Your task to perform on an android device: turn on location history Image 0: 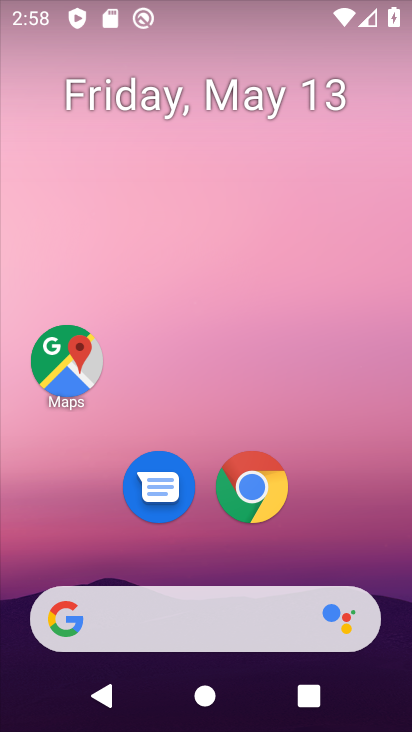
Step 0: drag from (355, 510) to (351, 68)
Your task to perform on an android device: turn on location history Image 1: 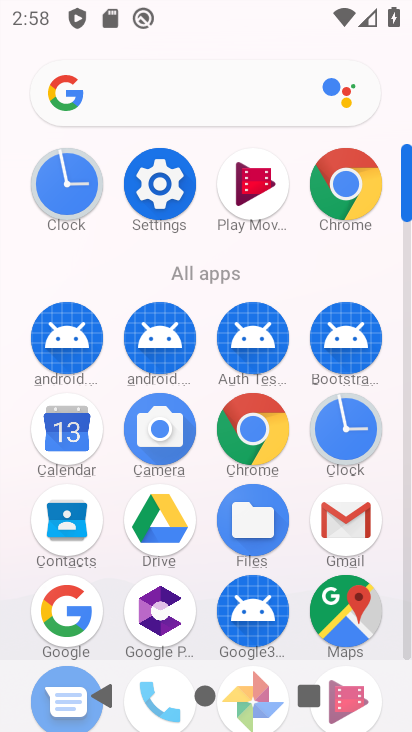
Step 1: click (147, 179)
Your task to perform on an android device: turn on location history Image 2: 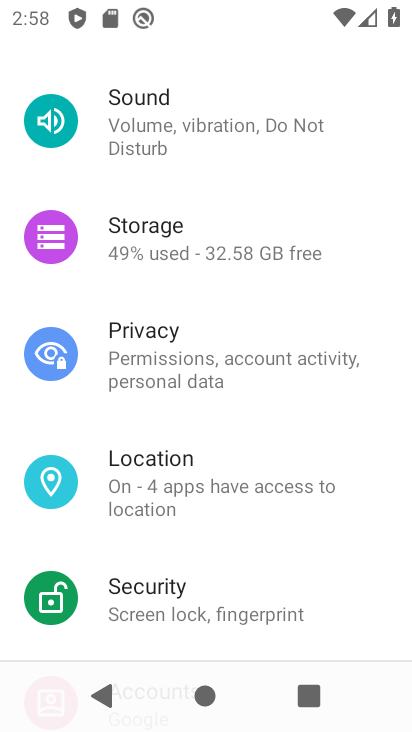
Step 2: click (167, 485)
Your task to perform on an android device: turn on location history Image 3: 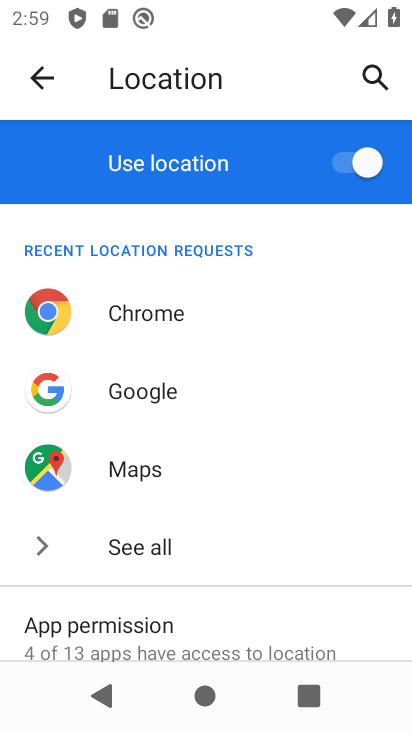
Step 3: drag from (167, 485) to (173, 120)
Your task to perform on an android device: turn on location history Image 4: 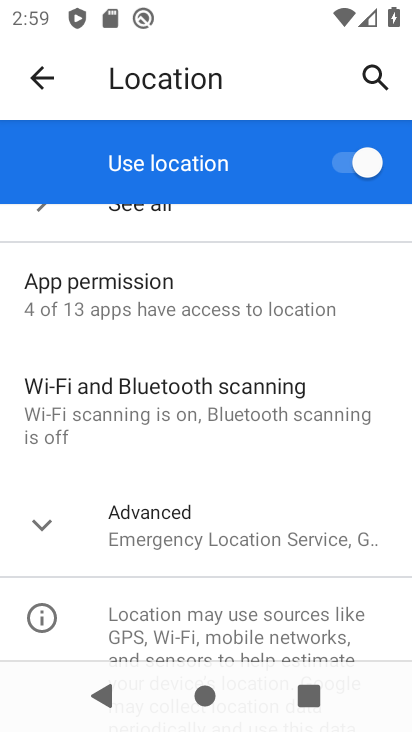
Step 4: click (190, 522)
Your task to perform on an android device: turn on location history Image 5: 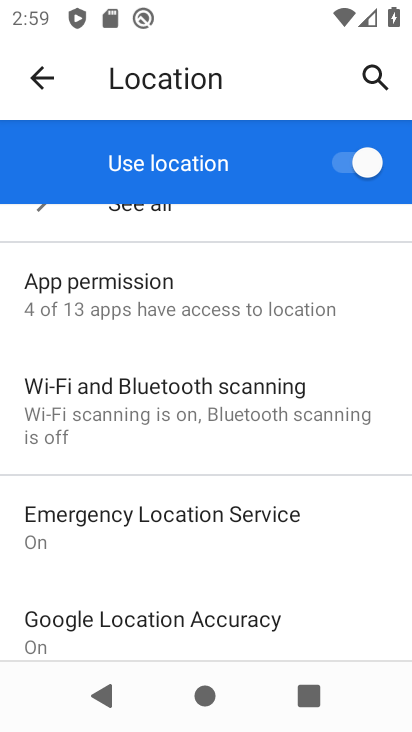
Step 5: drag from (114, 512) to (167, 267)
Your task to perform on an android device: turn on location history Image 6: 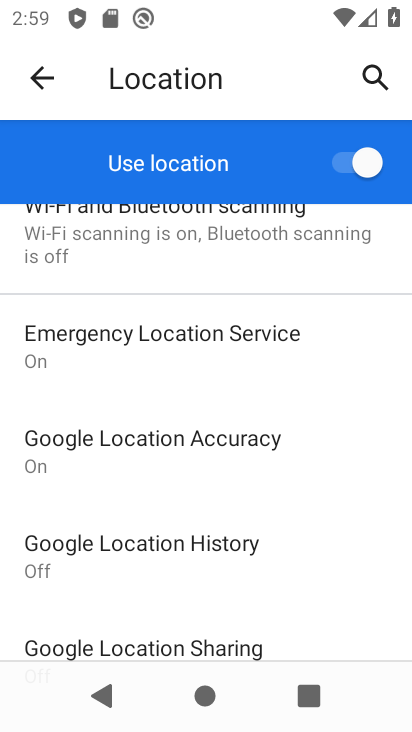
Step 6: drag from (258, 595) to (293, 276)
Your task to perform on an android device: turn on location history Image 7: 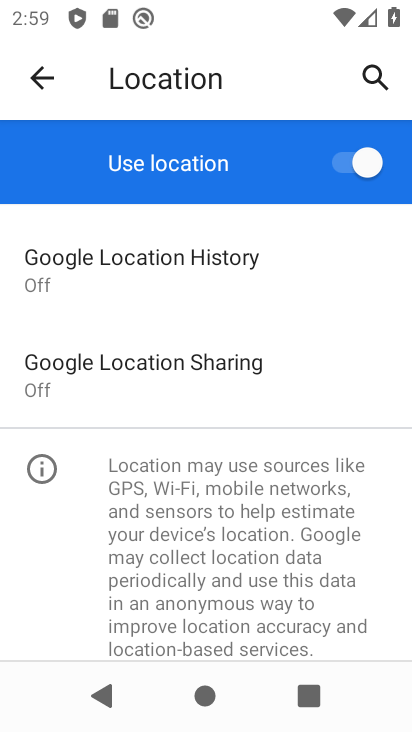
Step 7: click (148, 259)
Your task to perform on an android device: turn on location history Image 8: 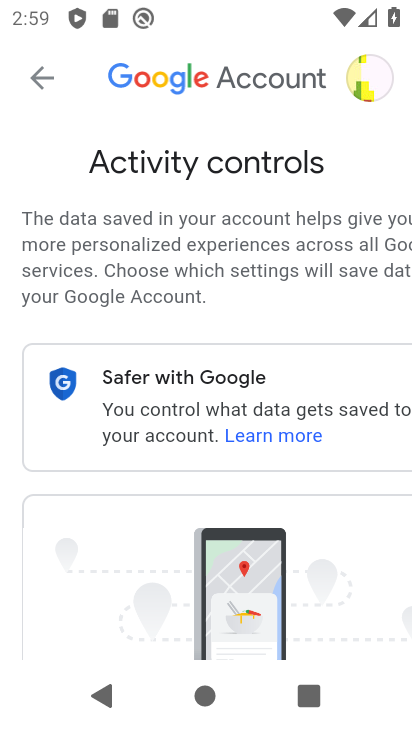
Step 8: drag from (196, 529) to (258, 209)
Your task to perform on an android device: turn on location history Image 9: 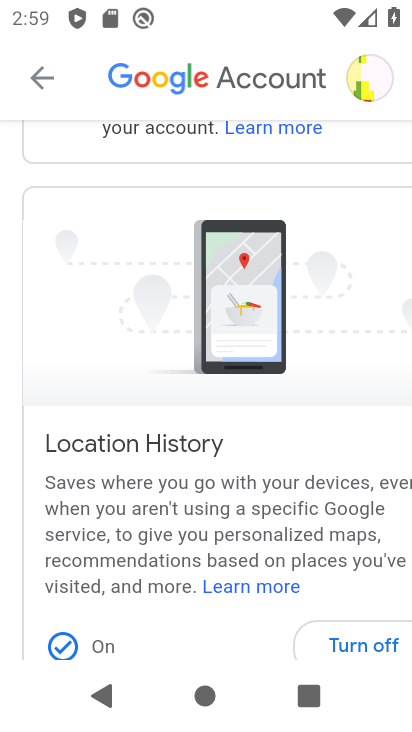
Step 9: drag from (156, 589) to (153, 196)
Your task to perform on an android device: turn on location history Image 10: 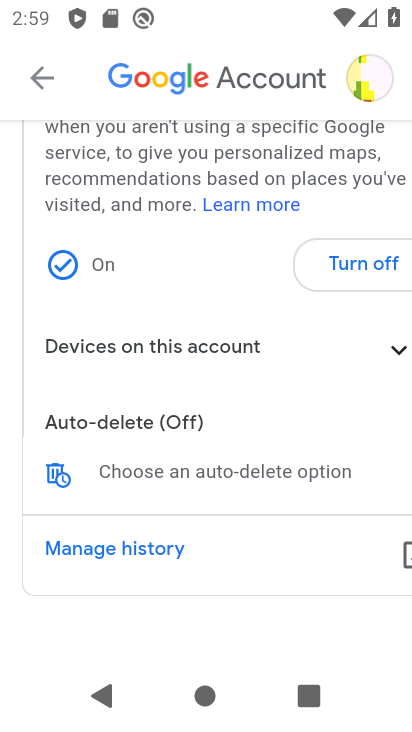
Step 10: drag from (283, 546) to (128, 516)
Your task to perform on an android device: turn on location history Image 11: 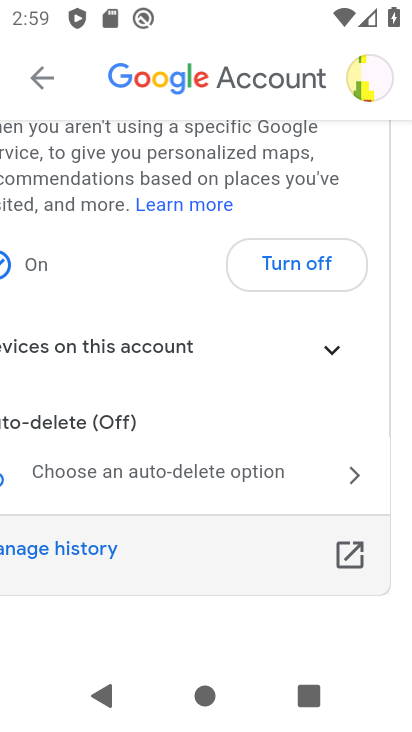
Step 11: click (277, 266)
Your task to perform on an android device: turn on location history Image 12: 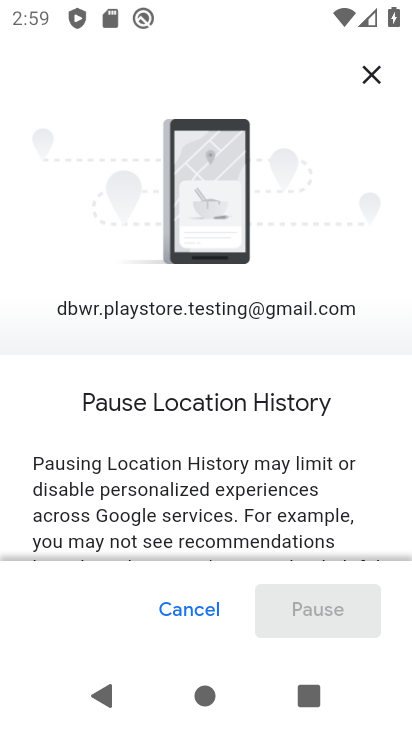
Step 12: drag from (296, 466) to (301, 159)
Your task to perform on an android device: turn on location history Image 13: 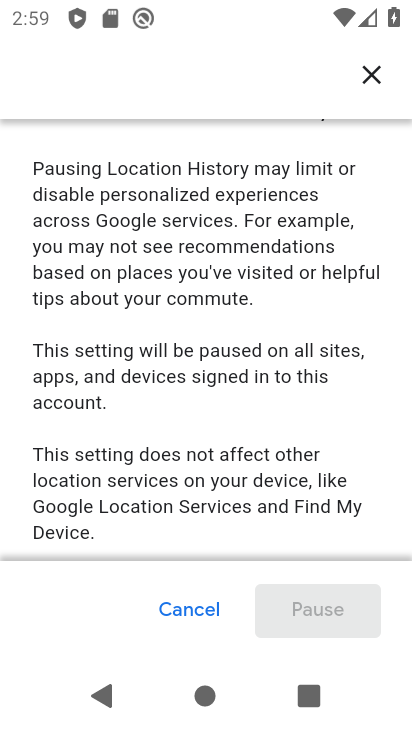
Step 13: drag from (214, 444) to (235, 111)
Your task to perform on an android device: turn on location history Image 14: 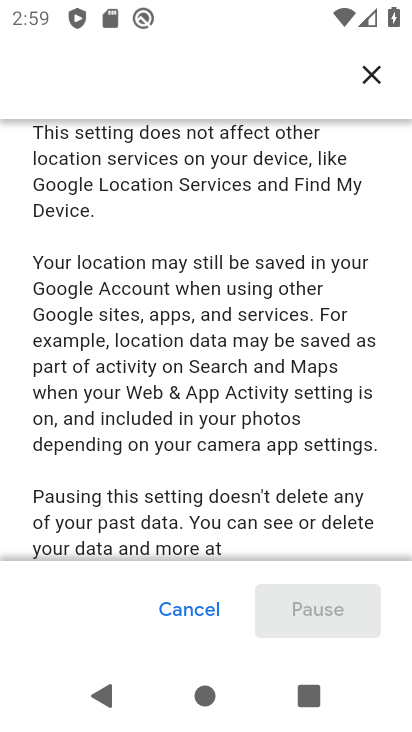
Step 14: drag from (228, 435) to (288, 104)
Your task to perform on an android device: turn on location history Image 15: 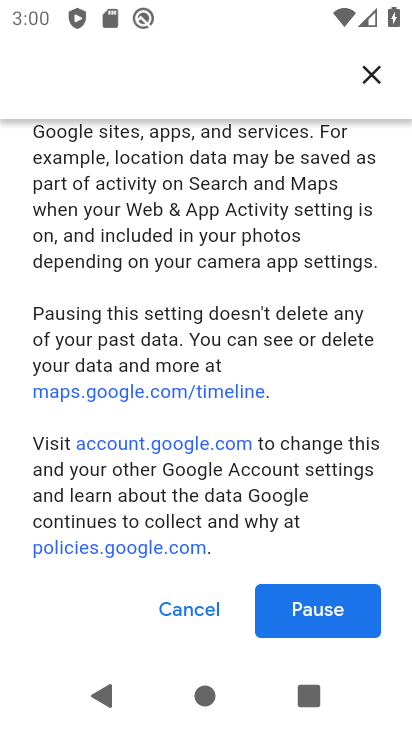
Step 15: click (317, 614)
Your task to perform on an android device: turn on location history Image 16: 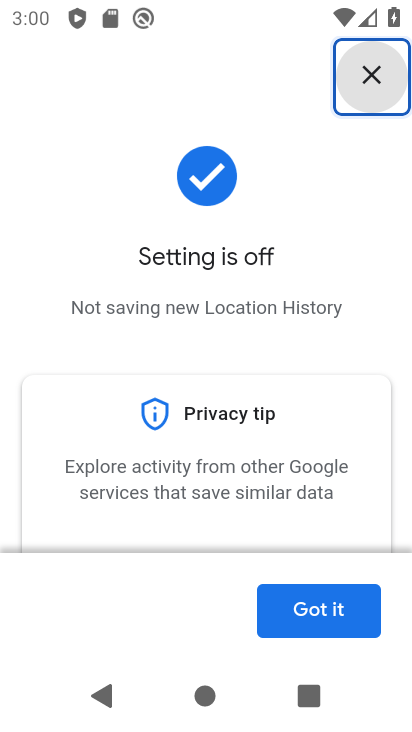
Step 16: click (317, 614)
Your task to perform on an android device: turn on location history Image 17: 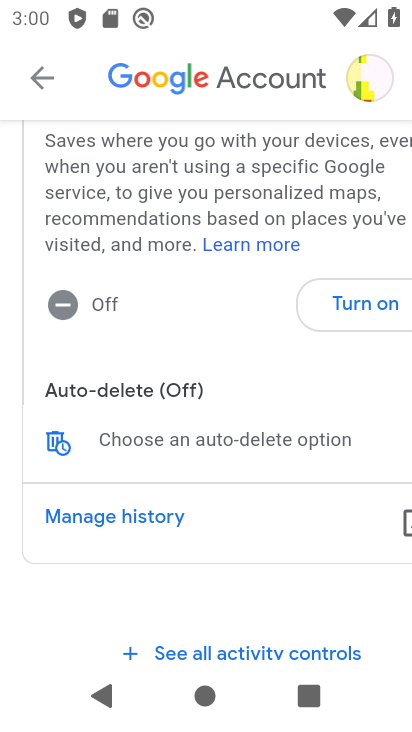
Step 17: task complete